Your task to perform on an android device: open a bookmark in the chrome app Image 0: 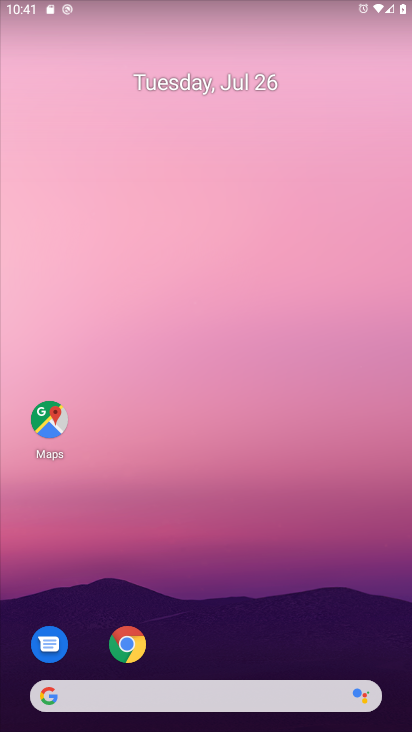
Step 0: click (130, 655)
Your task to perform on an android device: open a bookmark in the chrome app Image 1: 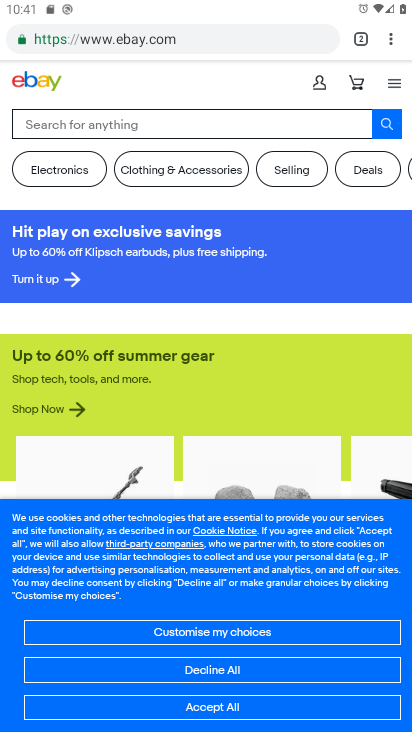
Step 1: click (377, 43)
Your task to perform on an android device: open a bookmark in the chrome app Image 2: 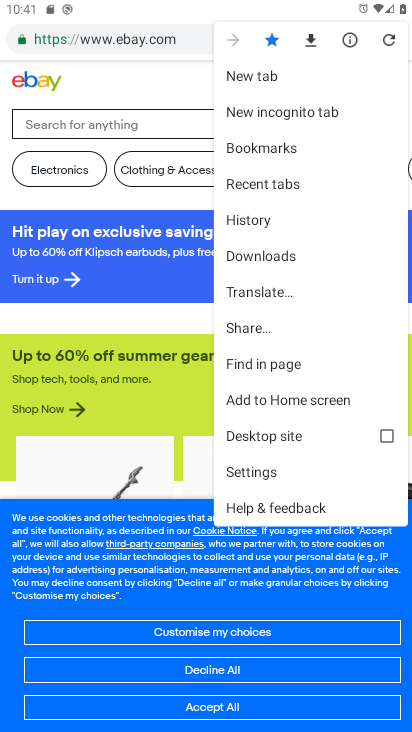
Step 2: click (261, 158)
Your task to perform on an android device: open a bookmark in the chrome app Image 3: 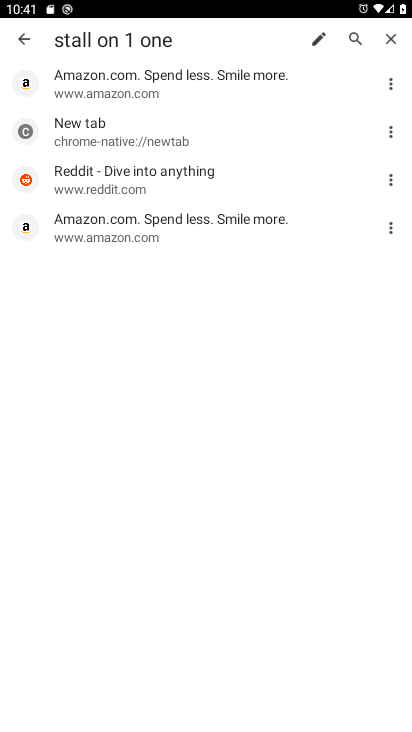
Step 3: click (107, 235)
Your task to perform on an android device: open a bookmark in the chrome app Image 4: 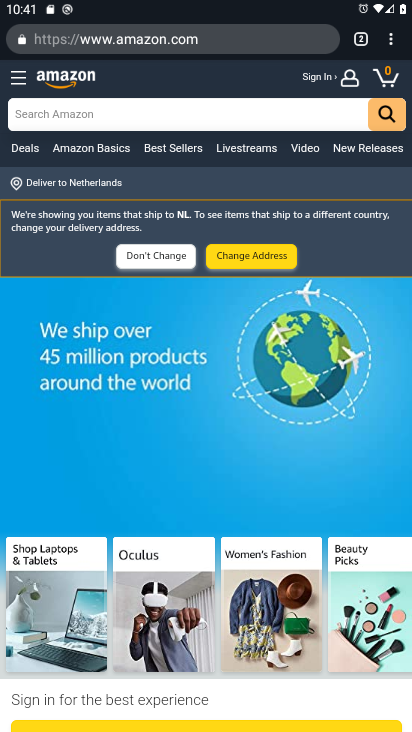
Step 4: task complete